Your task to perform on an android device: snooze an email in the gmail app Image 0: 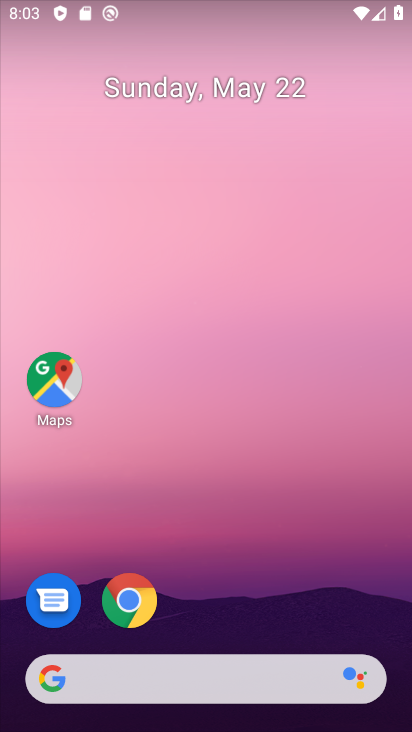
Step 0: drag from (281, 444) to (295, 131)
Your task to perform on an android device: snooze an email in the gmail app Image 1: 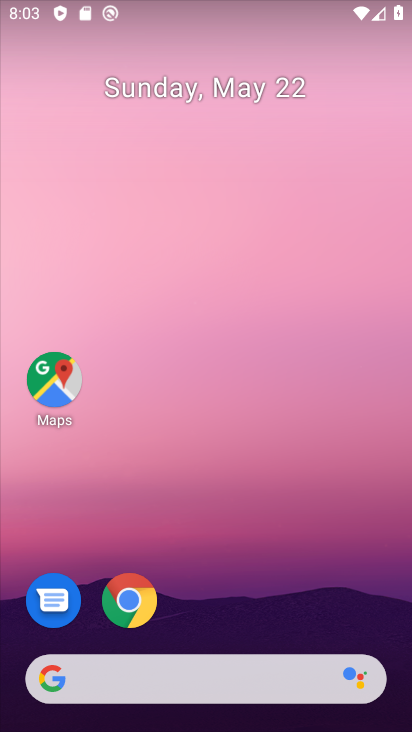
Step 1: drag from (250, 499) to (278, 105)
Your task to perform on an android device: snooze an email in the gmail app Image 2: 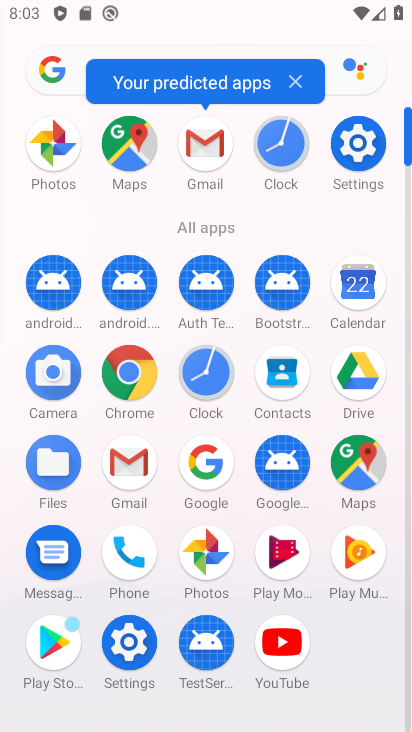
Step 2: click (134, 472)
Your task to perform on an android device: snooze an email in the gmail app Image 3: 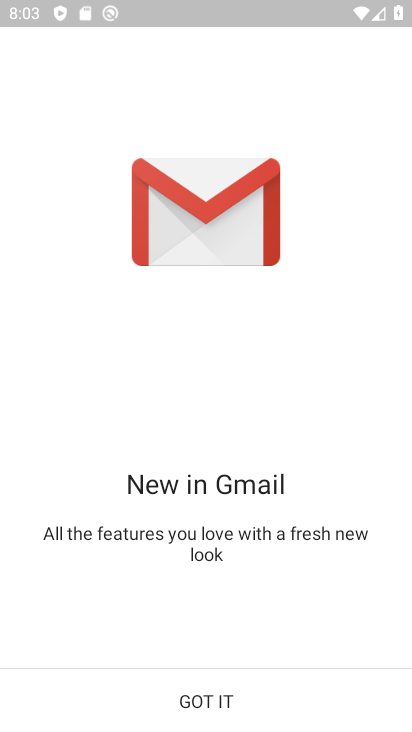
Step 3: click (228, 715)
Your task to perform on an android device: snooze an email in the gmail app Image 4: 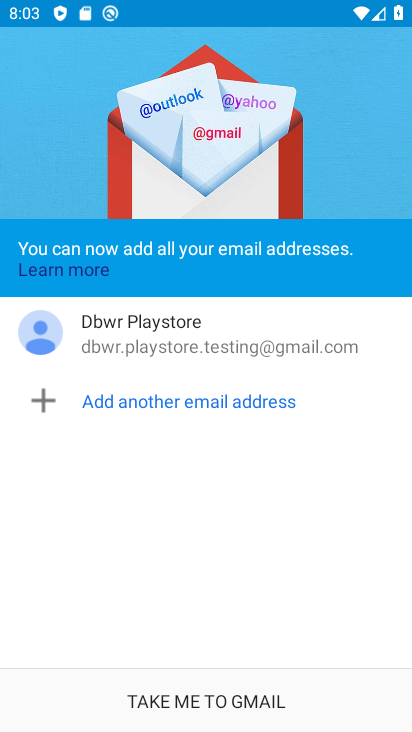
Step 4: click (228, 715)
Your task to perform on an android device: snooze an email in the gmail app Image 5: 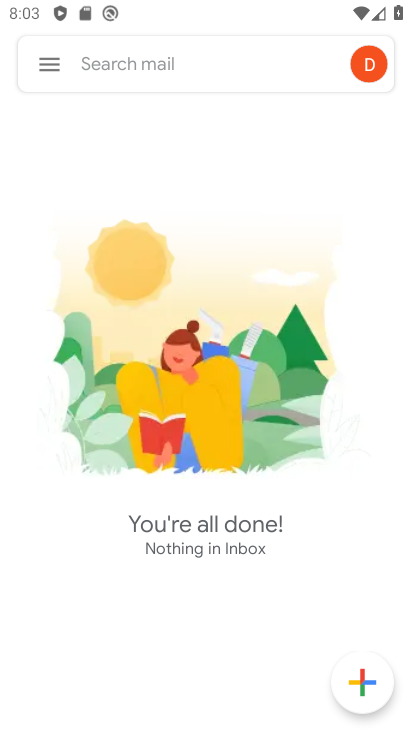
Step 5: click (55, 71)
Your task to perform on an android device: snooze an email in the gmail app Image 6: 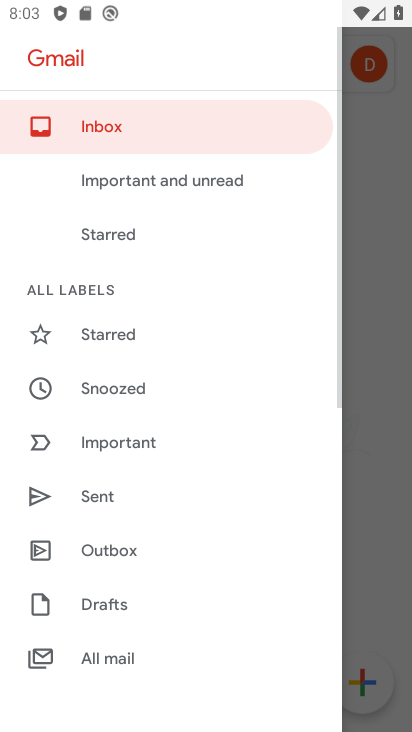
Step 6: drag from (128, 522) to (144, 223)
Your task to perform on an android device: snooze an email in the gmail app Image 7: 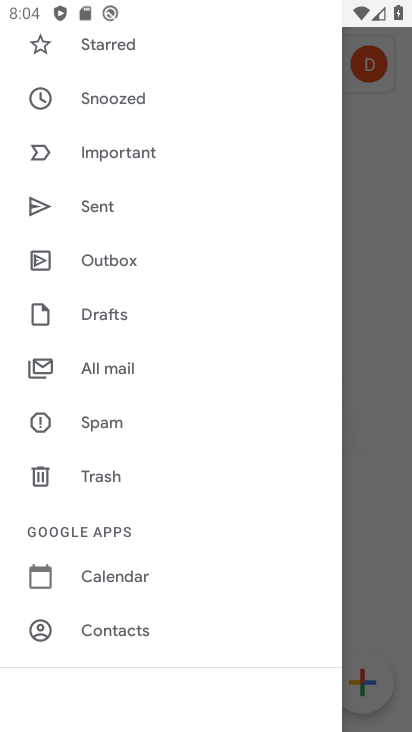
Step 7: click (147, 383)
Your task to perform on an android device: snooze an email in the gmail app Image 8: 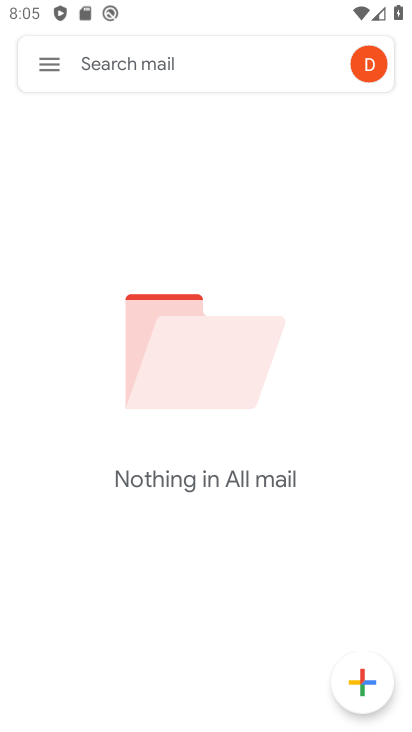
Step 8: task complete